Your task to perform on an android device: change timer sound Image 0: 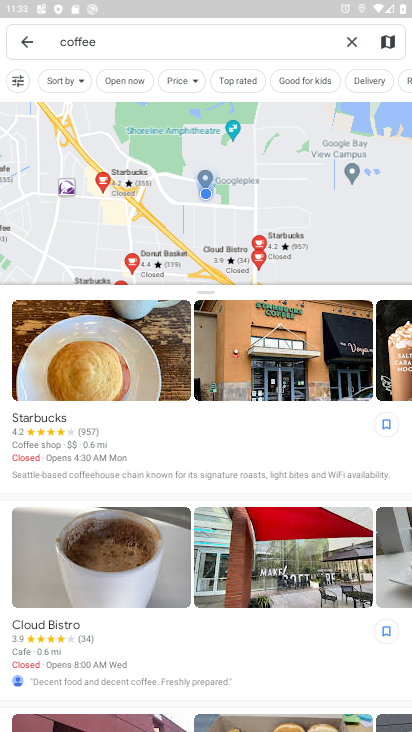
Step 0: press home button
Your task to perform on an android device: change timer sound Image 1: 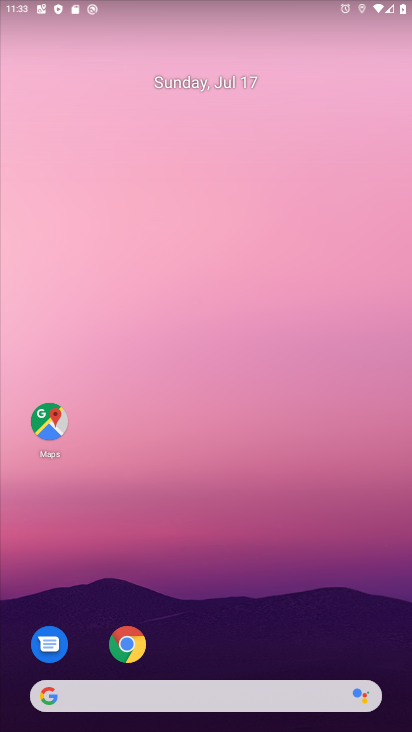
Step 1: drag from (254, 20) to (294, 9)
Your task to perform on an android device: change timer sound Image 2: 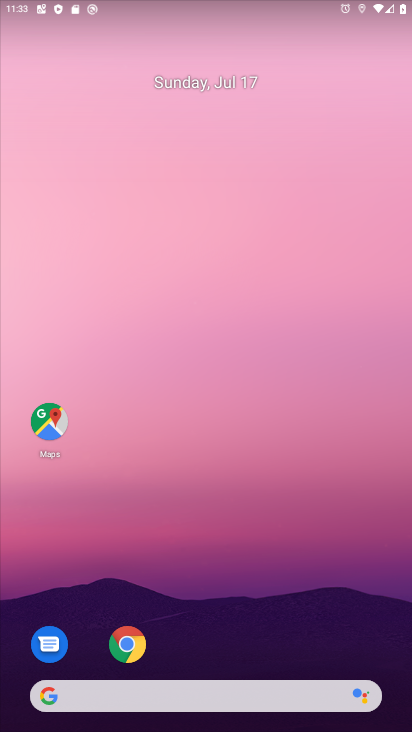
Step 2: drag from (246, 551) to (229, 217)
Your task to perform on an android device: change timer sound Image 3: 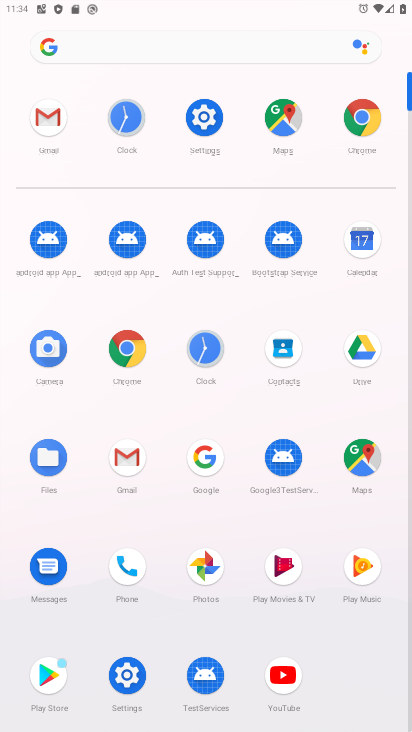
Step 3: click (199, 348)
Your task to perform on an android device: change timer sound Image 4: 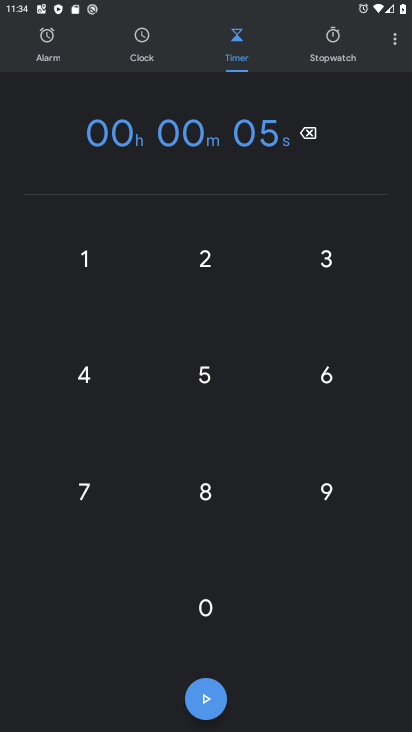
Step 4: click (392, 39)
Your task to perform on an android device: change timer sound Image 5: 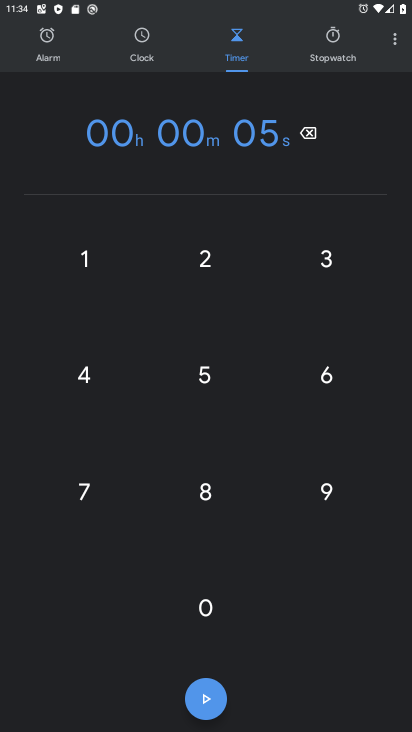
Step 5: click (381, 42)
Your task to perform on an android device: change timer sound Image 6: 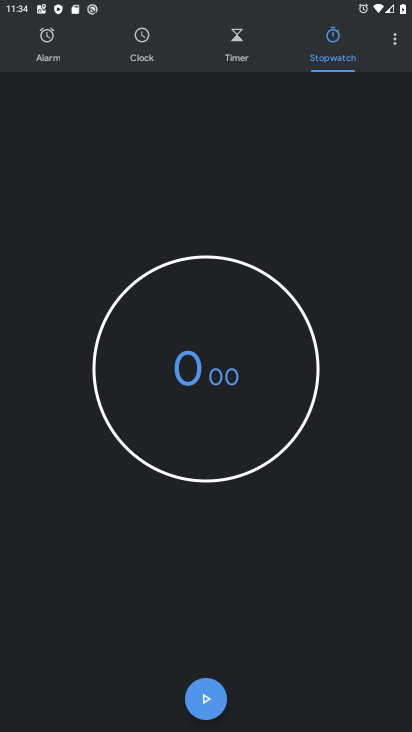
Step 6: click (396, 47)
Your task to perform on an android device: change timer sound Image 7: 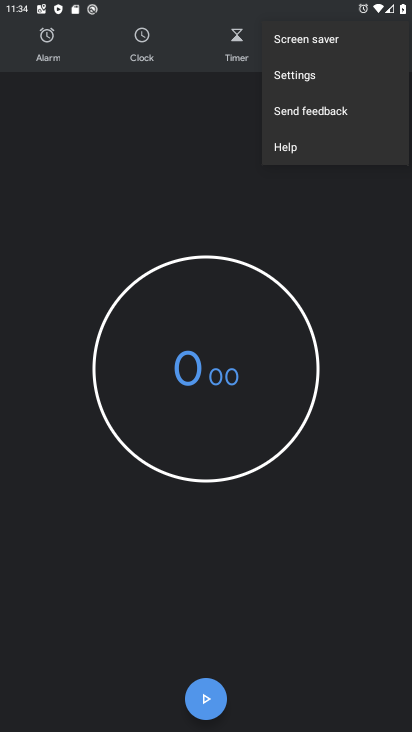
Step 7: click (307, 76)
Your task to perform on an android device: change timer sound Image 8: 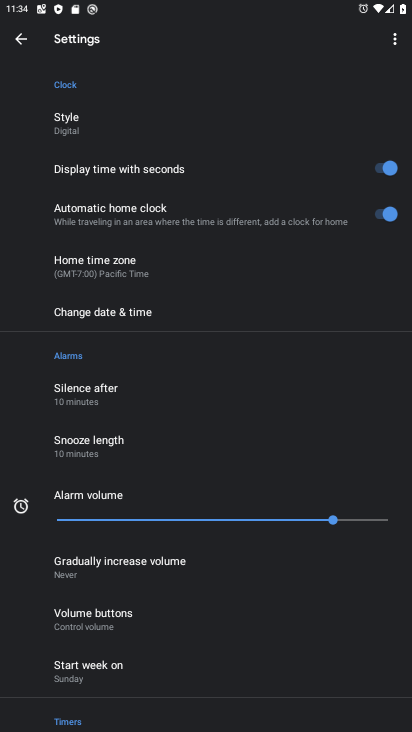
Step 8: drag from (272, 661) to (309, 340)
Your task to perform on an android device: change timer sound Image 9: 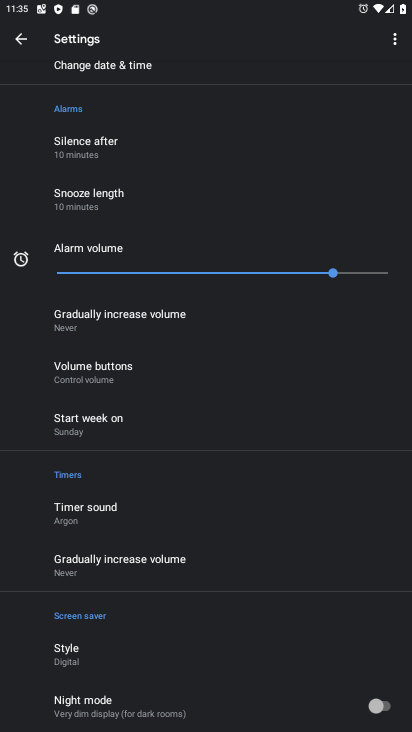
Step 9: click (108, 513)
Your task to perform on an android device: change timer sound Image 10: 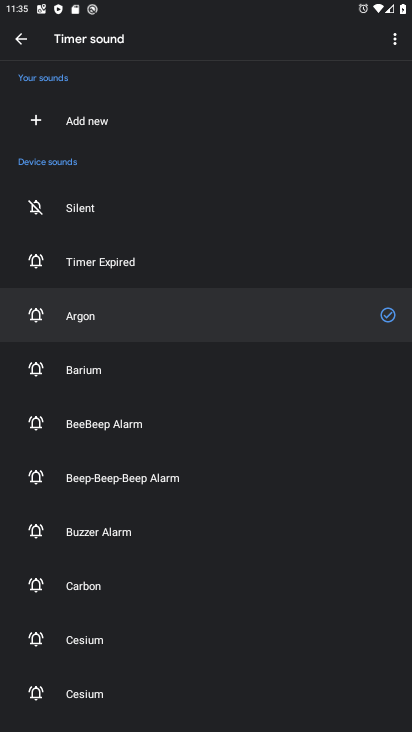
Step 10: click (103, 257)
Your task to perform on an android device: change timer sound Image 11: 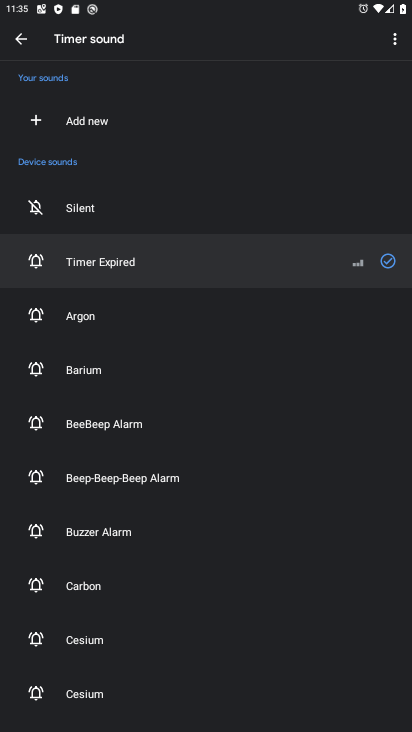
Step 11: task complete